Your task to perform on an android device: clear all cookies in the chrome app Image 0: 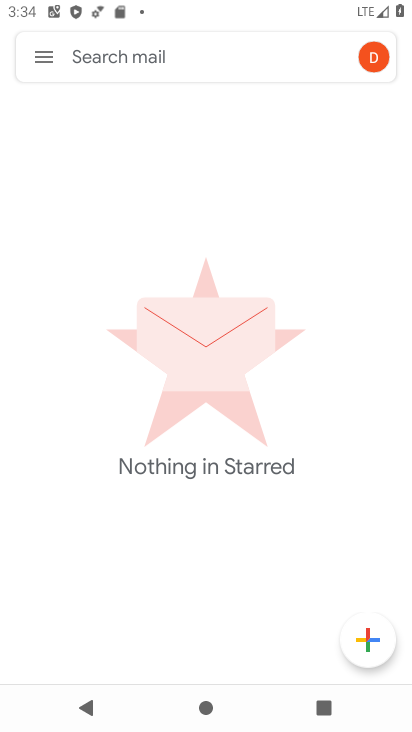
Step 0: click (44, 56)
Your task to perform on an android device: clear all cookies in the chrome app Image 1: 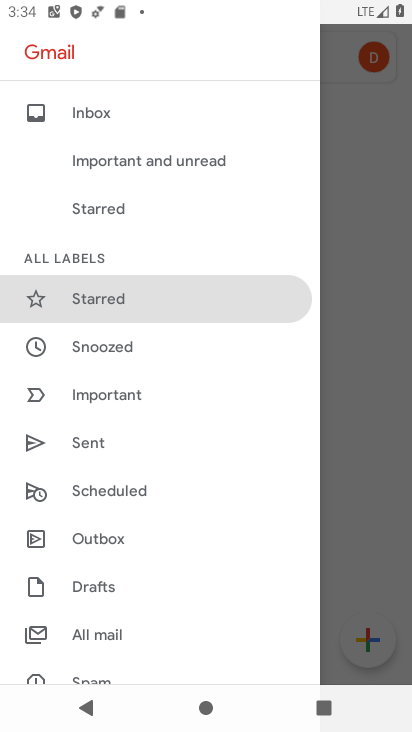
Step 1: press home button
Your task to perform on an android device: clear all cookies in the chrome app Image 2: 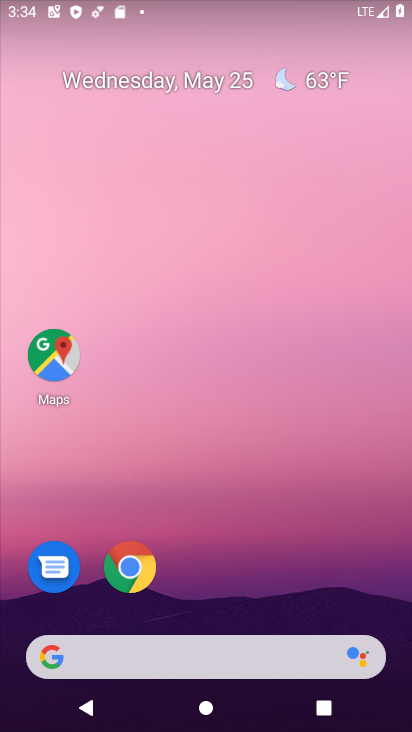
Step 2: drag from (289, 545) to (297, 50)
Your task to perform on an android device: clear all cookies in the chrome app Image 3: 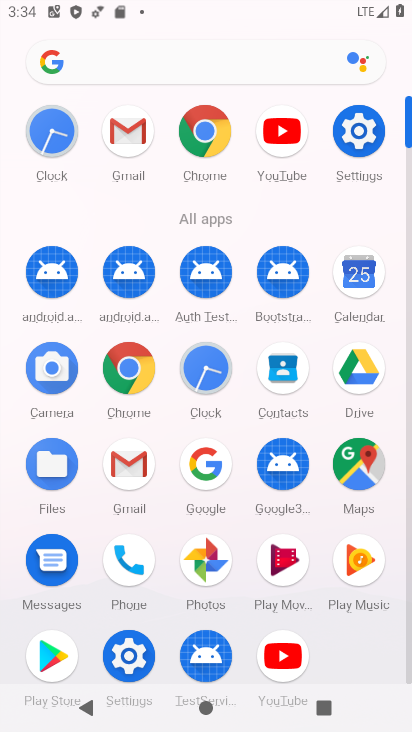
Step 3: click (141, 364)
Your task to perform on an android device: clear all cookies in the chrome app Image 4: 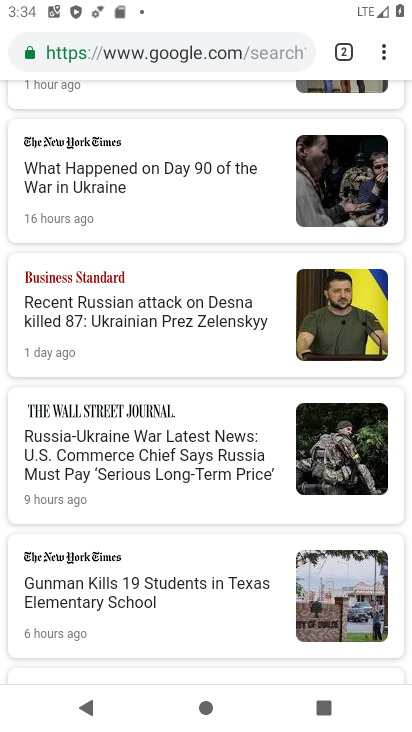
Step 4: drag from (380, 55) to (210, 588)
Your task to perform on an android device: clear all cookies in the chrome app Image 5: 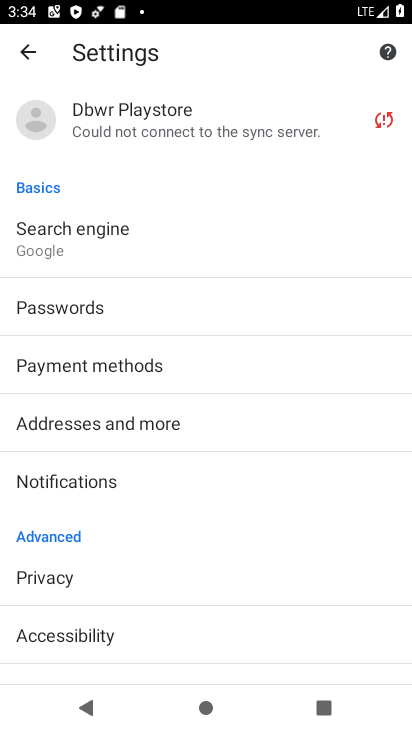
Step 5: click (60, 579)
Your task to perform on an android device: clear all cookies in the chrome app Image 6: 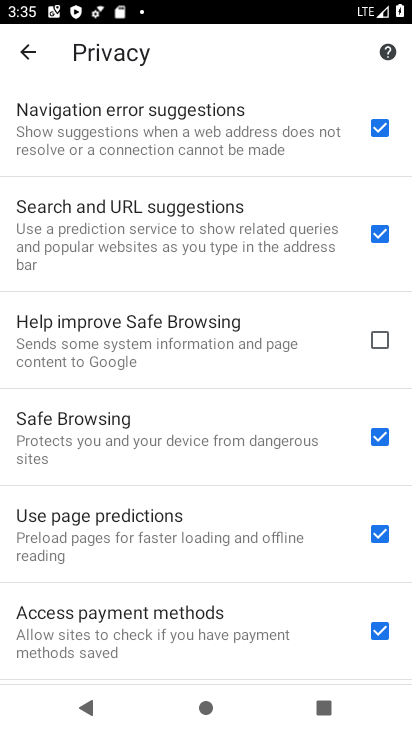
Step 6: drag from (262, 594) to (307, 178)
Your task to perform on an android device: clear all cookies in the chrome app Image 7: 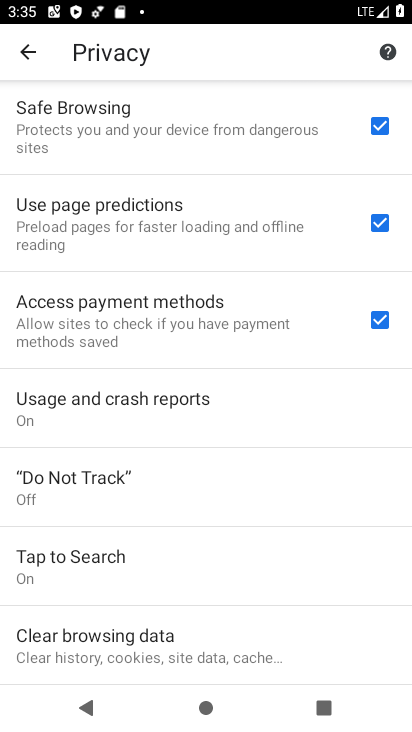
Step 7: drag from (200, 592) to (290, 193)
Your task to perform on an android device: clear all cookies in the chrome app Image 8: 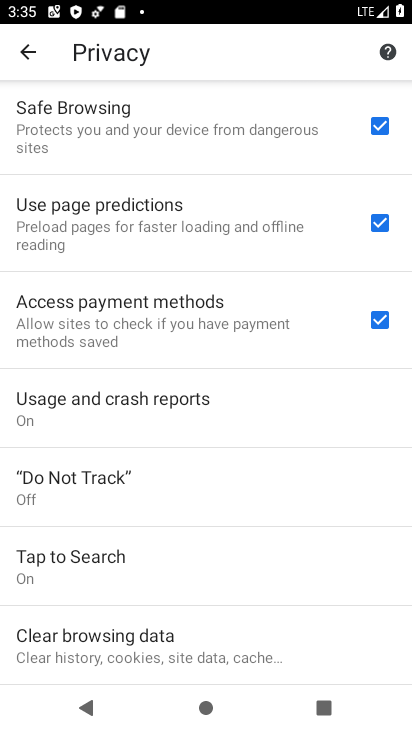
Step 8: click (147, 650)
Your task to perform on an android device: clear all cookies in the chrome app Image 9: 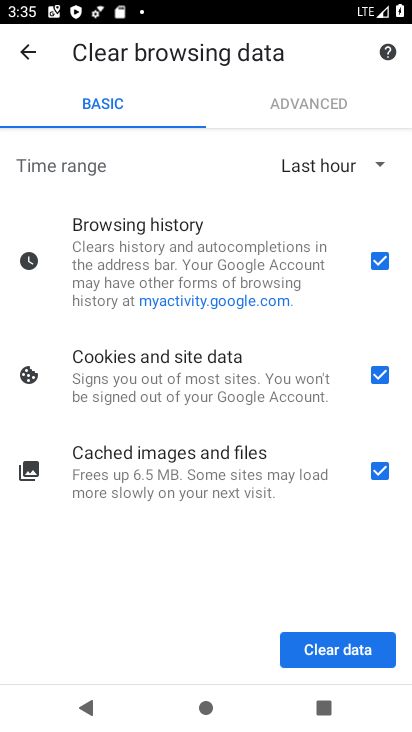
Step 9: click (353, 642)
Your task to perform on an android device: clear all cookies in the chrome app Image 10: 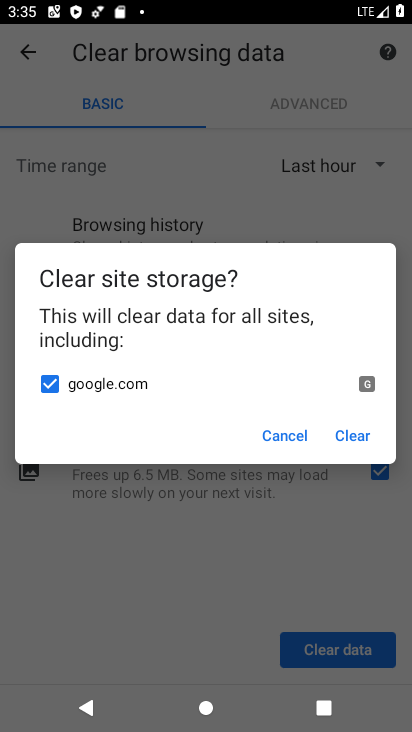
Step 10: click (351, 428)
Your task to perform on an android device: clear all cookies in the chrome app Image 11: 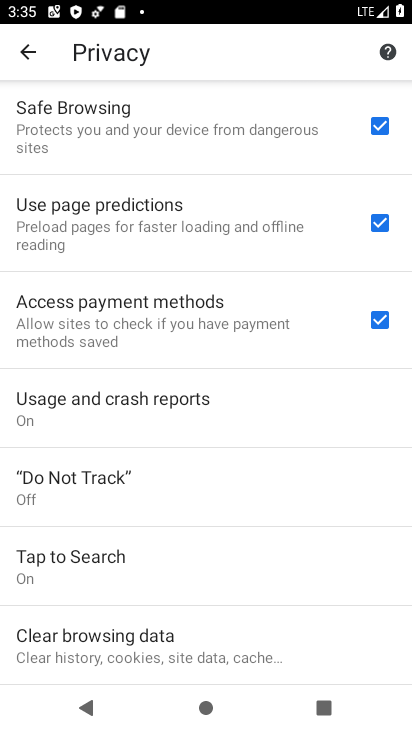
Step 11: task complete